Your task to perform on an android device: open a bookmark in the chrome app Image 0: 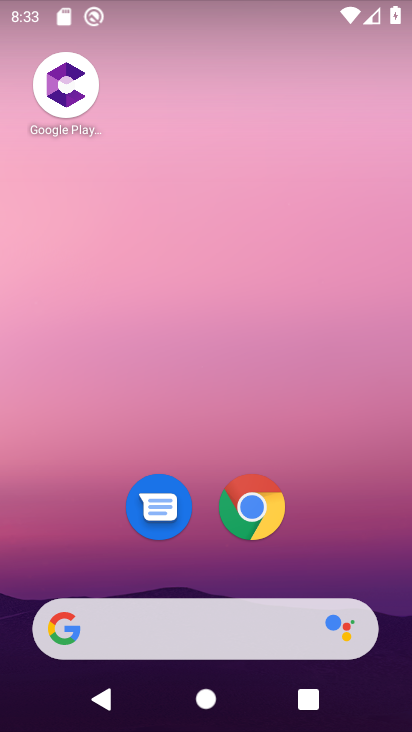
Step 0: drag from (255, 591) to (276, 56)
Your task to perform on an android device: open a bookmark in the chrome app Image 1: 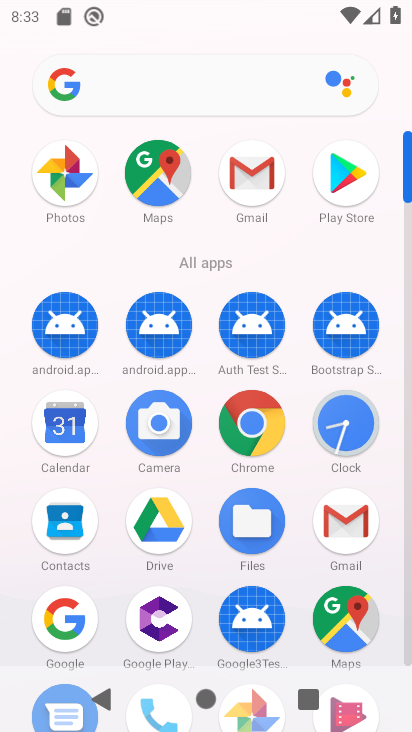
Step 1: click (254, 422)
Your task to perform on an android device: open a bookmark in the chrome app Image 2: 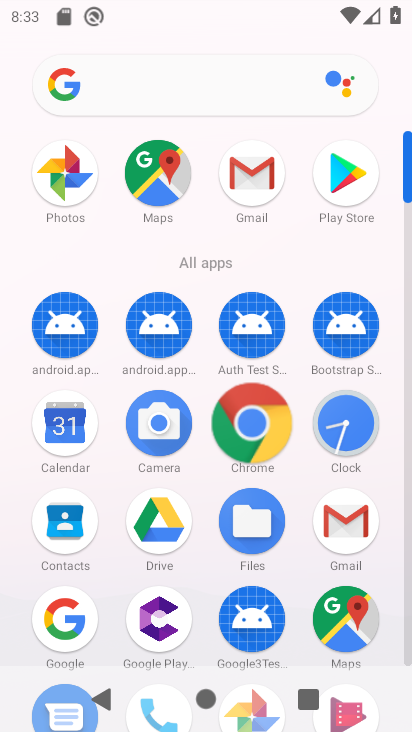
Step 2: click (255, 421)
Your task to perform on an android device: open a bookmark in the chrome app Image 3: 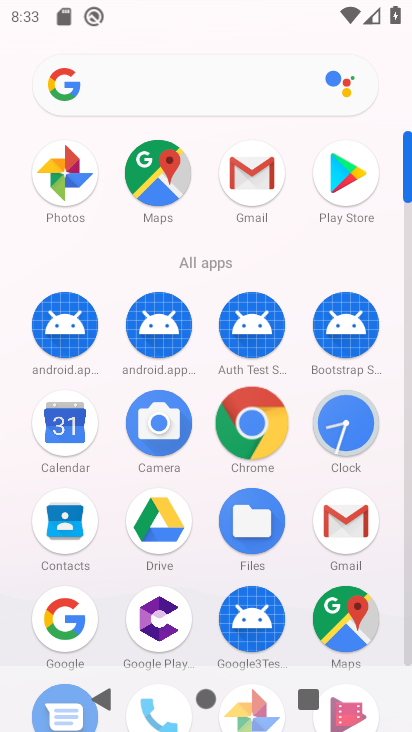
Step 3: click (254, 418)
Your task to perform on an android device: open a bookmark in the chrome app Image 4: 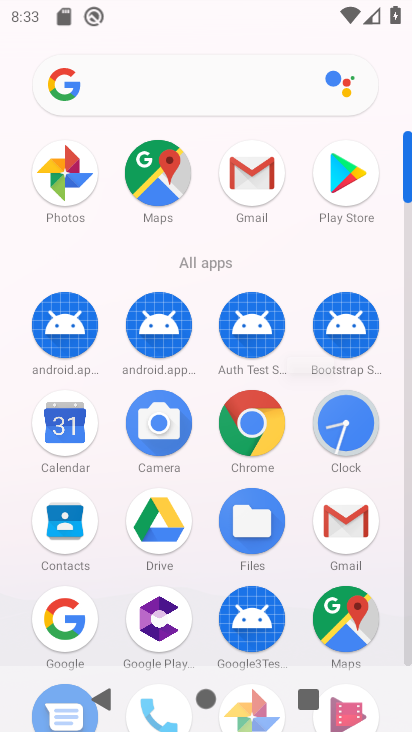
Step 4: click (254, 418)
Your task to perform on an android device: open a bookmark in the chrome app Image 5: 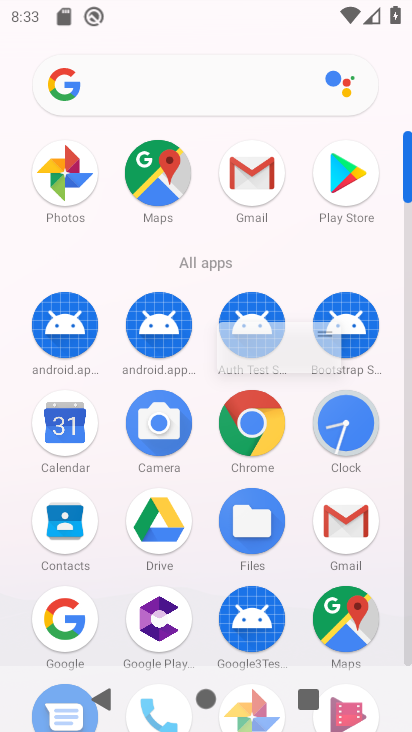
Step 5: click (254, 418)
Your task to perform on an android device: open a bookmark in the chrome app Image 6: 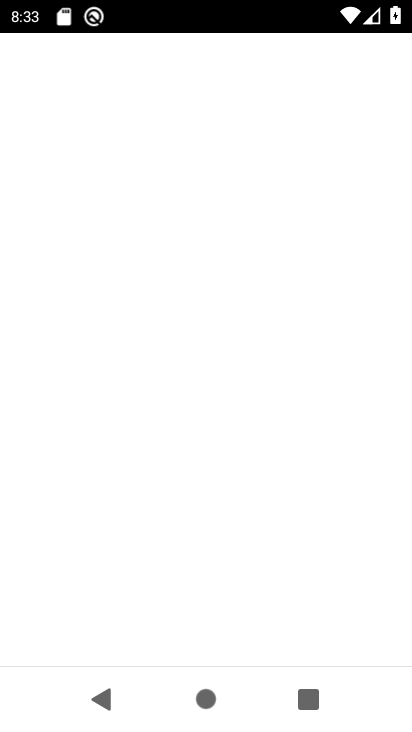
Step 6: click (254, 418)
Your task to perform on an android device: open a bookmark in the chrome app Image 7: 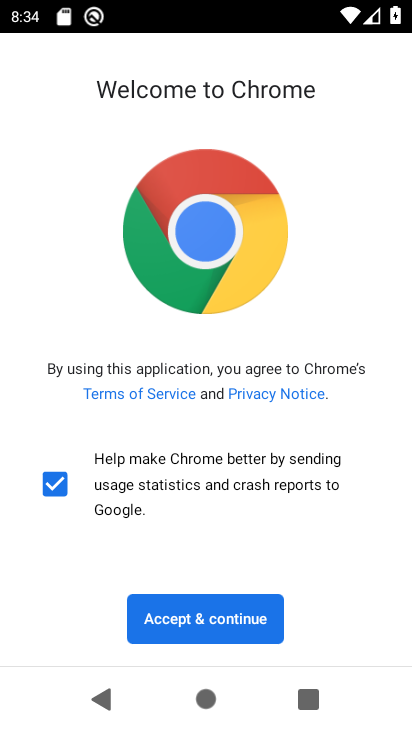
Step 7: click (214, 619)
Your task to perform on an android device: open a bookmark in the chrome app Image 8: 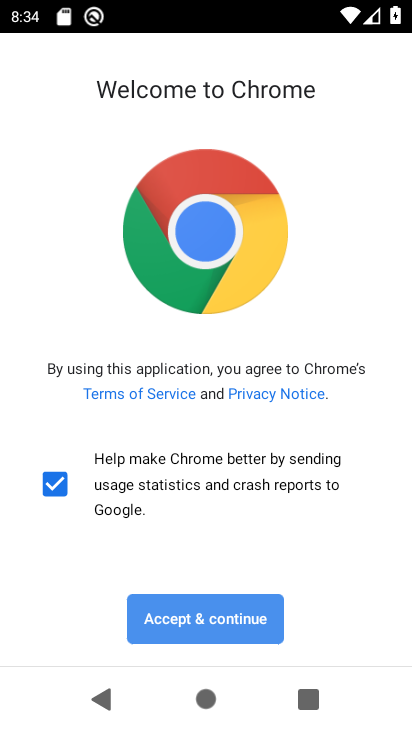
Step 8: click (213, 621)
Your task to perform on an android device: open a bookmark in the chrome app Image 9: 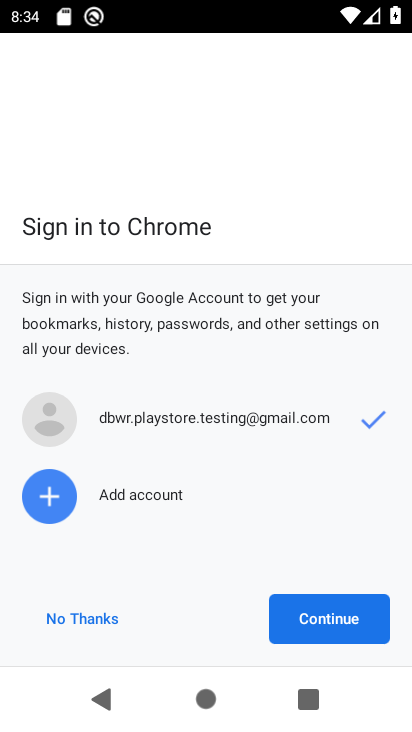
Step 9: click (351, 614)
Your task to perform on an android device: open a bookmark in the chrome app Image 10: 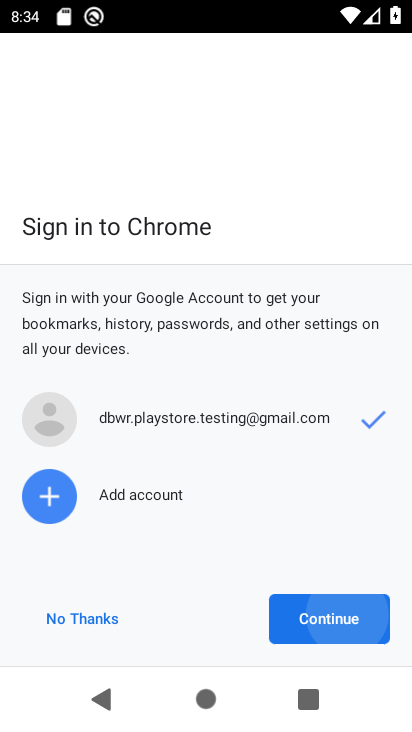
Step 10: click (351, 614)
Your task to perform on an android device: open a bookmark in the chrome app Image 11: 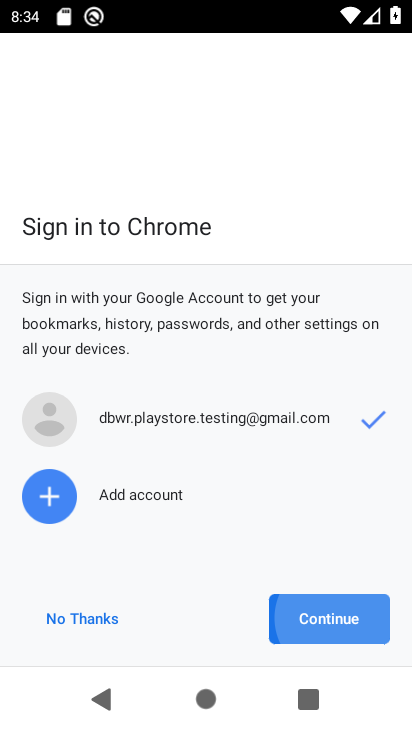
Step 11: click (351, 614)
Your task to perform on an android device: open a bookmark in the chrome app Image 12: 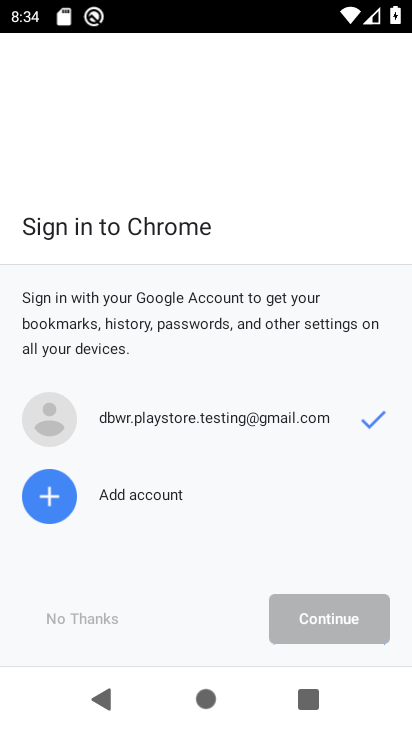
Step 12: click (351, 614)
Your task to perform on an android device: open a bookmark in the chrome app Image 13: 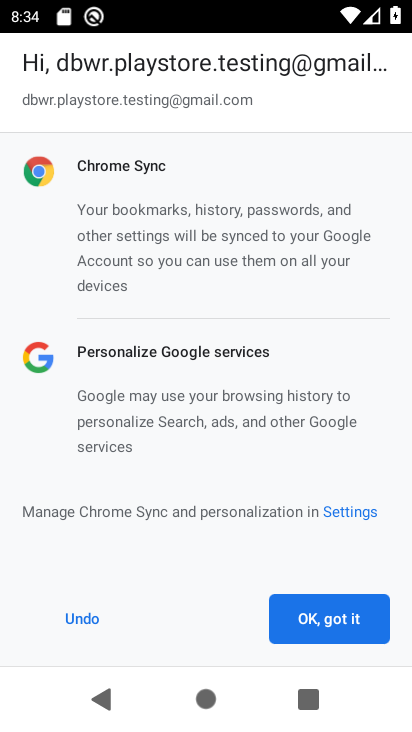
Step 13: click (335, 627)
Your task to perform on an android device: open a bookmark in the chrome app Image 14: 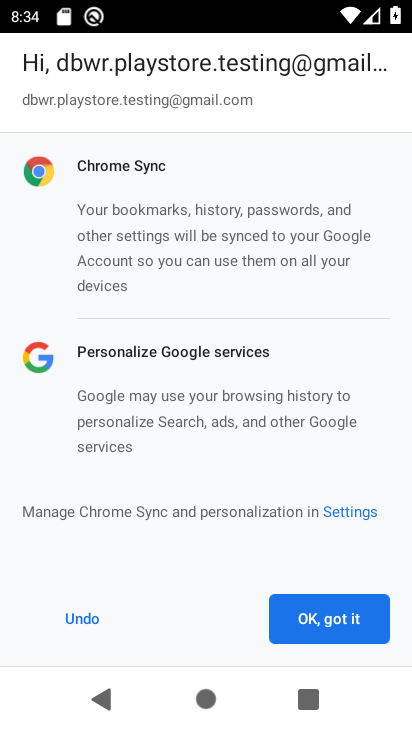
Step 14: click (335, 627)
Your task to perform on an android device: open a bookmark in the chrome app Image 15: 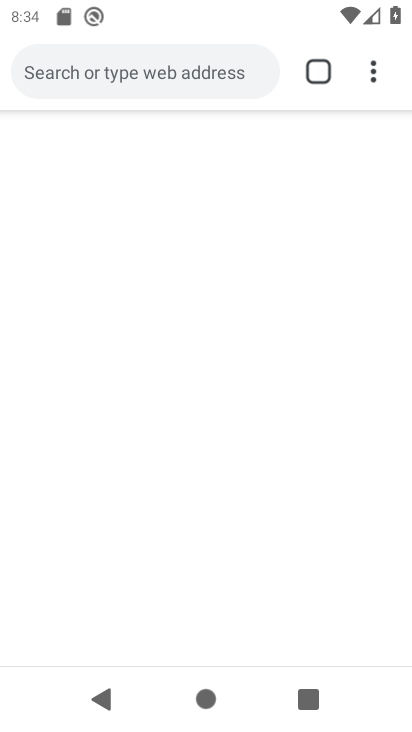
Step 15: drag from (366, 75) to (248, 393)
Your task to perform on an android device: open a bookmark in the chrome app Image 16: 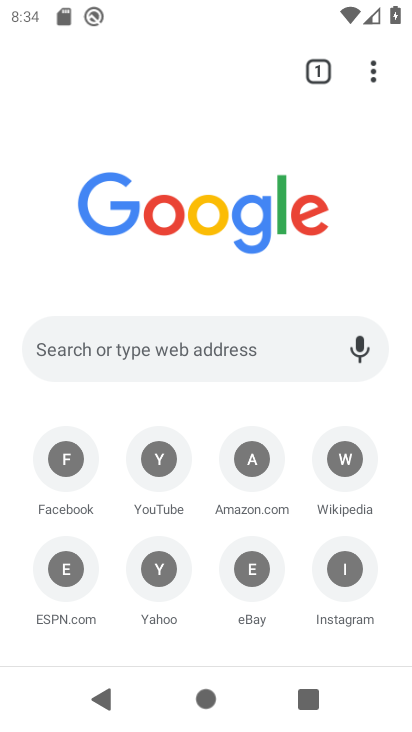
Step 16: click (375, 79)
Your task to perform on an android device: open a bookmark in the chrome app Image 17: 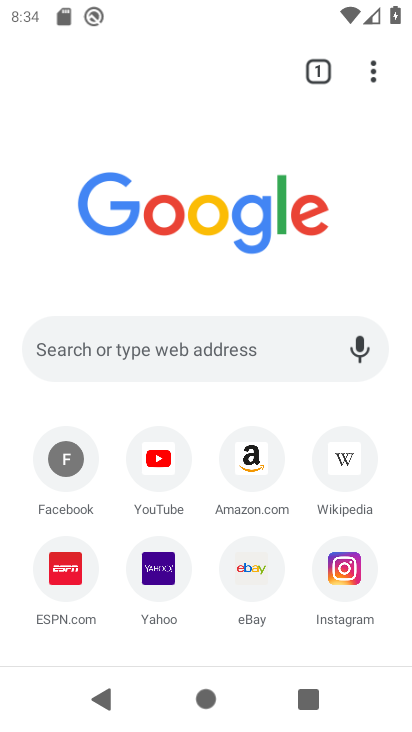
Step 17: drag from (374, 73) to (108, 270)
Your task to perform on an android device: open a bookmark in the chrome app Image 18: 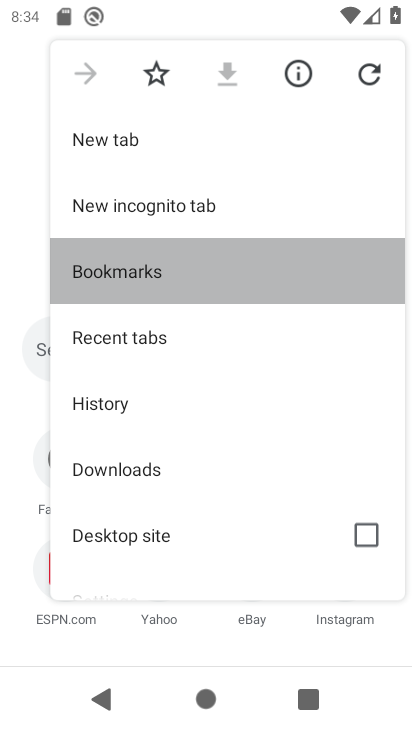
Step 18: click (105, 270)
Your task to perform on an android device: open a bookmark in the chrome app Image 19: 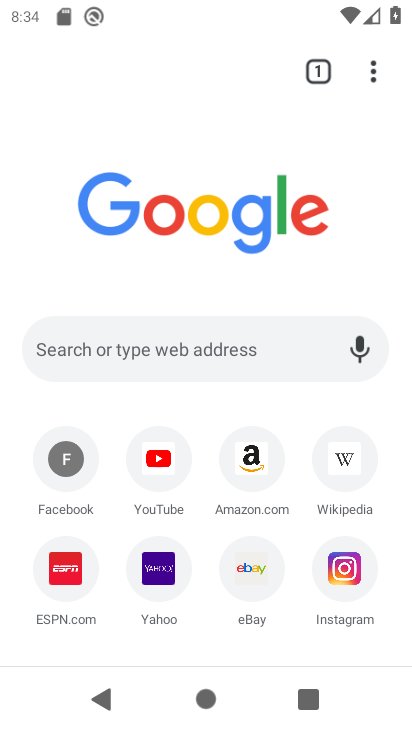
Step 19: click (100, 272)
Your task to perform on an android device: open a bookmark in the chrome app Image 20: 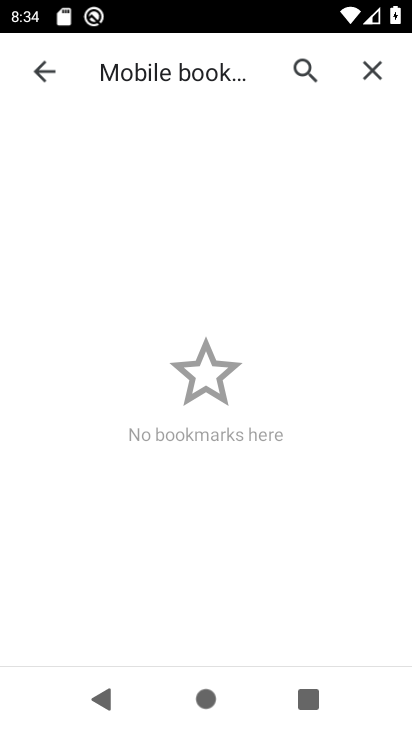
Step 20: task complete